Your task to perform on an android device: Open the calendar and show me this week's events? Image 0: 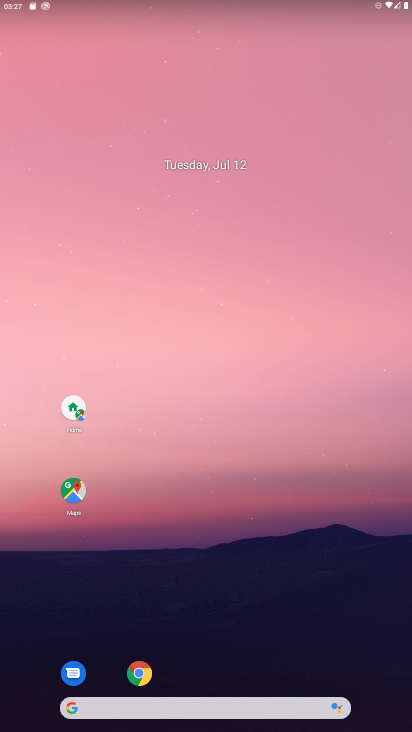
Step 0: drag from (274, 665) to (259, 280)
Your task to perform on an android device: Open the calendar and show me this week's events? Image 1: 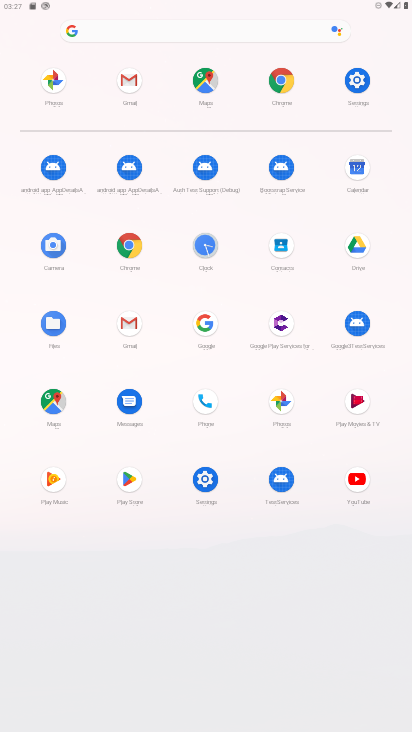
Step 1: click (354, 152)
Your task to perform on an android device: Open the calendar and show me this week's events? Image 2: 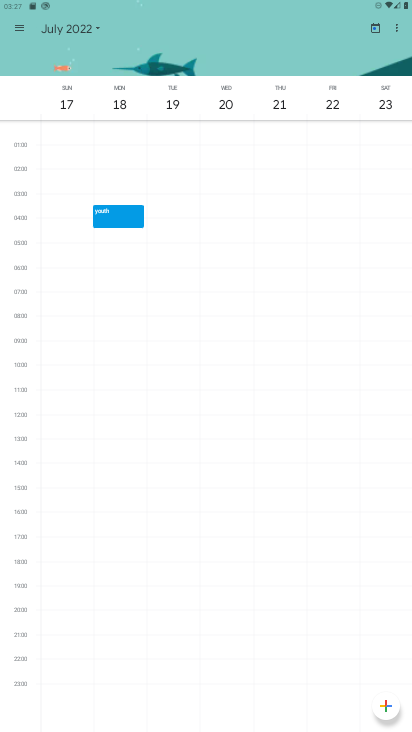
Step 2: click (22, 32)
Your task to perform on an android device: Open the calendar and show me this week's events? Image 3: 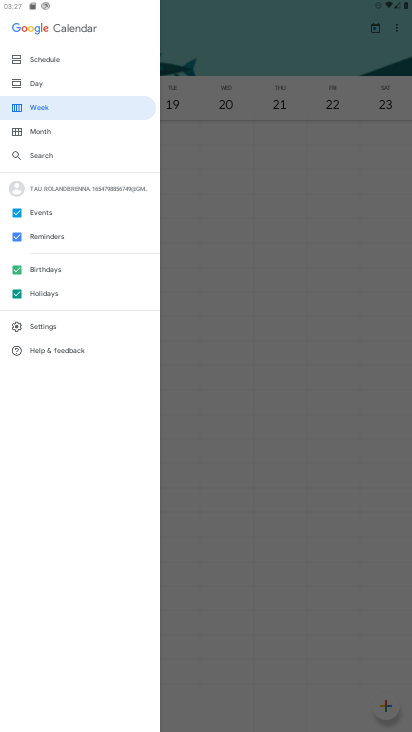
Step 3: click (38, 102)
Your task to perform on an android device: Open the calendar and show me this week's events? Image 4: 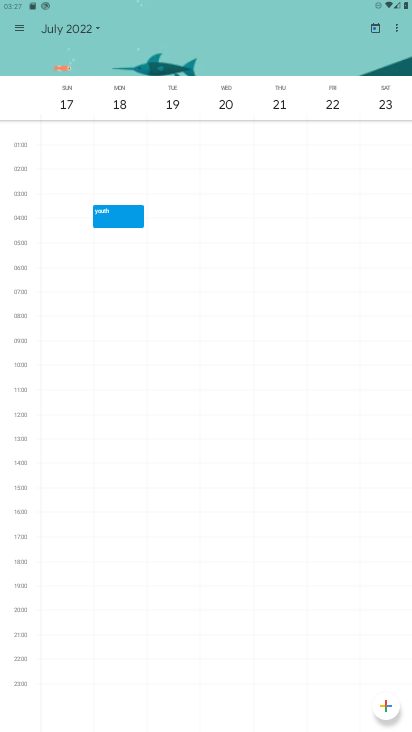
Step 4: task complete